Your task to perform on an android device: What is the news today? Image 0: 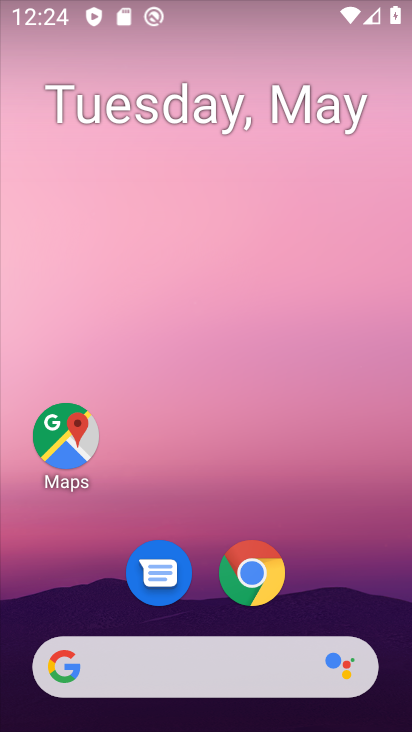
Step 0: click (397, 10)
Your task to perform on an android device: What is the news today? Image 1: 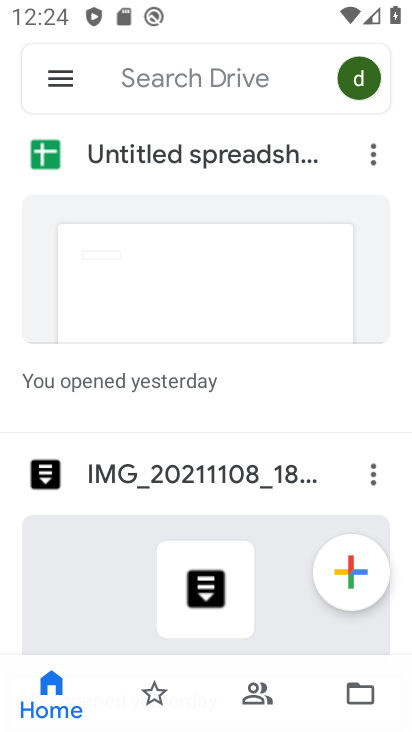
Step 1: press home button
Your task to perform on an android device: What is the news today? Image 2: 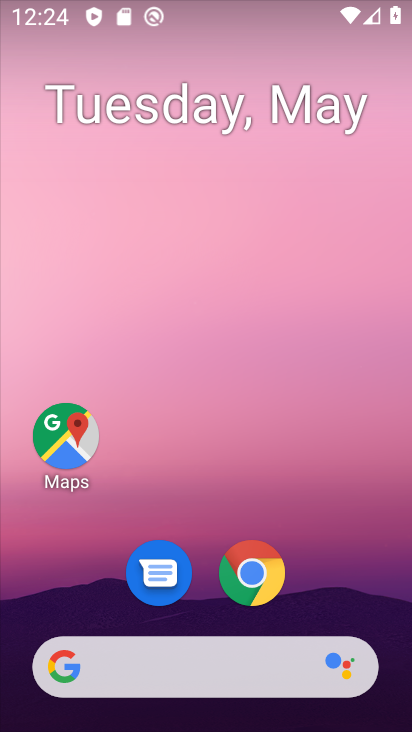
Step 2: click (255, 580)
Your task to perform on an android device: What is the news today? Image 3: 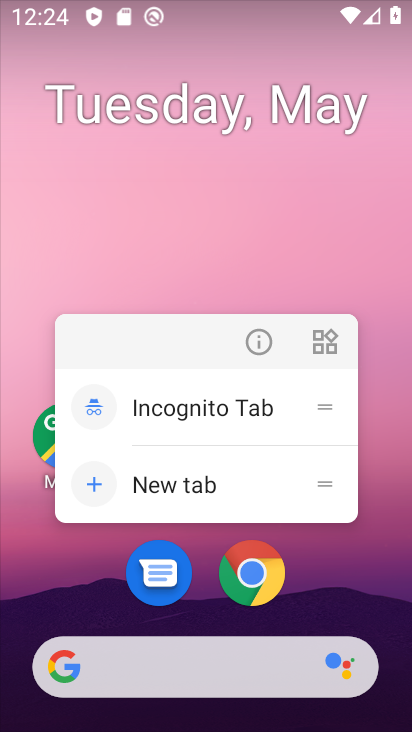
Step 3: click (255, 580)
Your task to perform on an android device: What is the news today? Image 4: 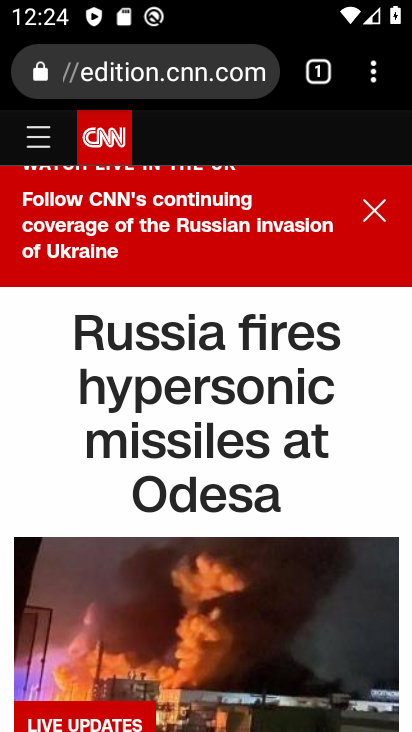
Step 4: task complete